Your task to perform on an android device: Add "bose quietcomfort 35" to the cart on costco.com Image 0: 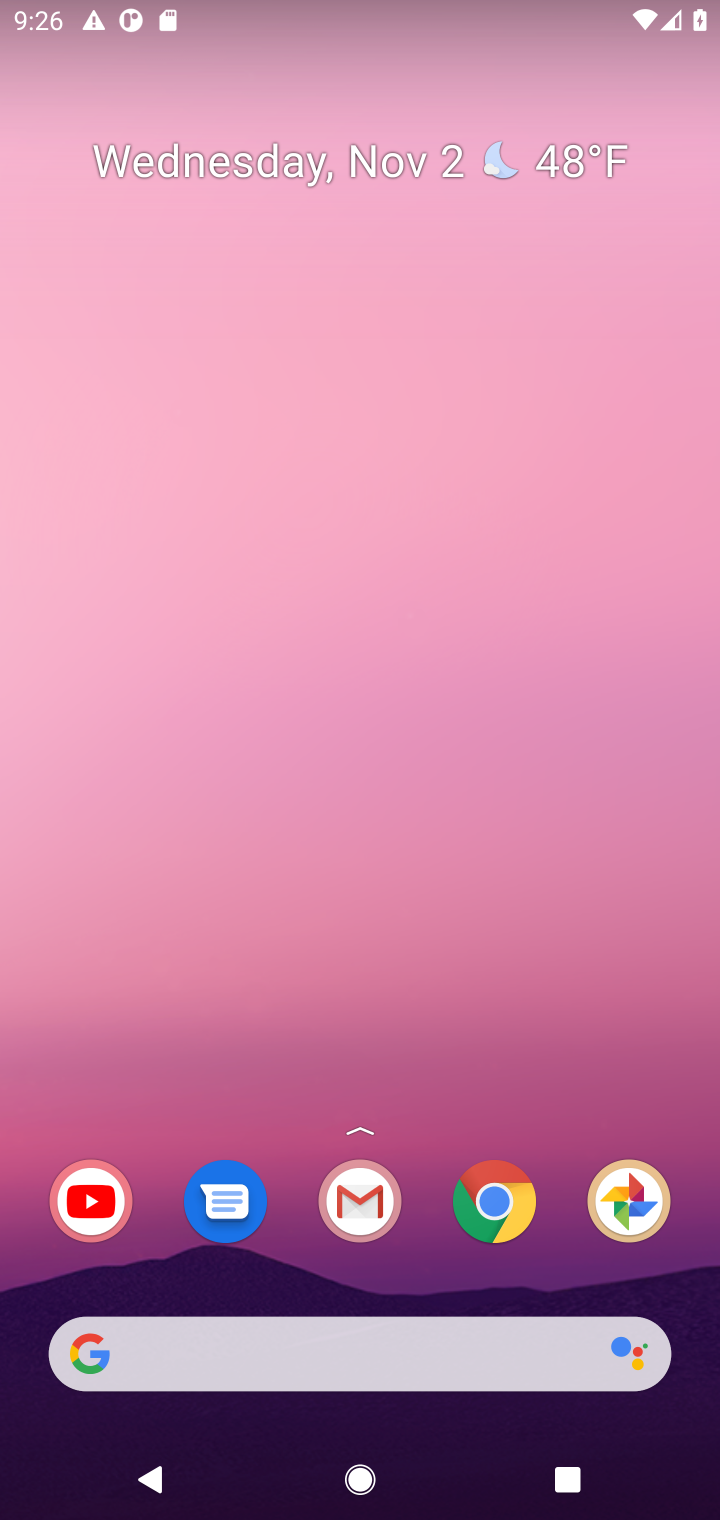
Step 0: drag from (397, 1271) to (352, 253)
Your task to perform on an android device: Add "bose quietcomfort 35" to the cart on costco.com Image 1: 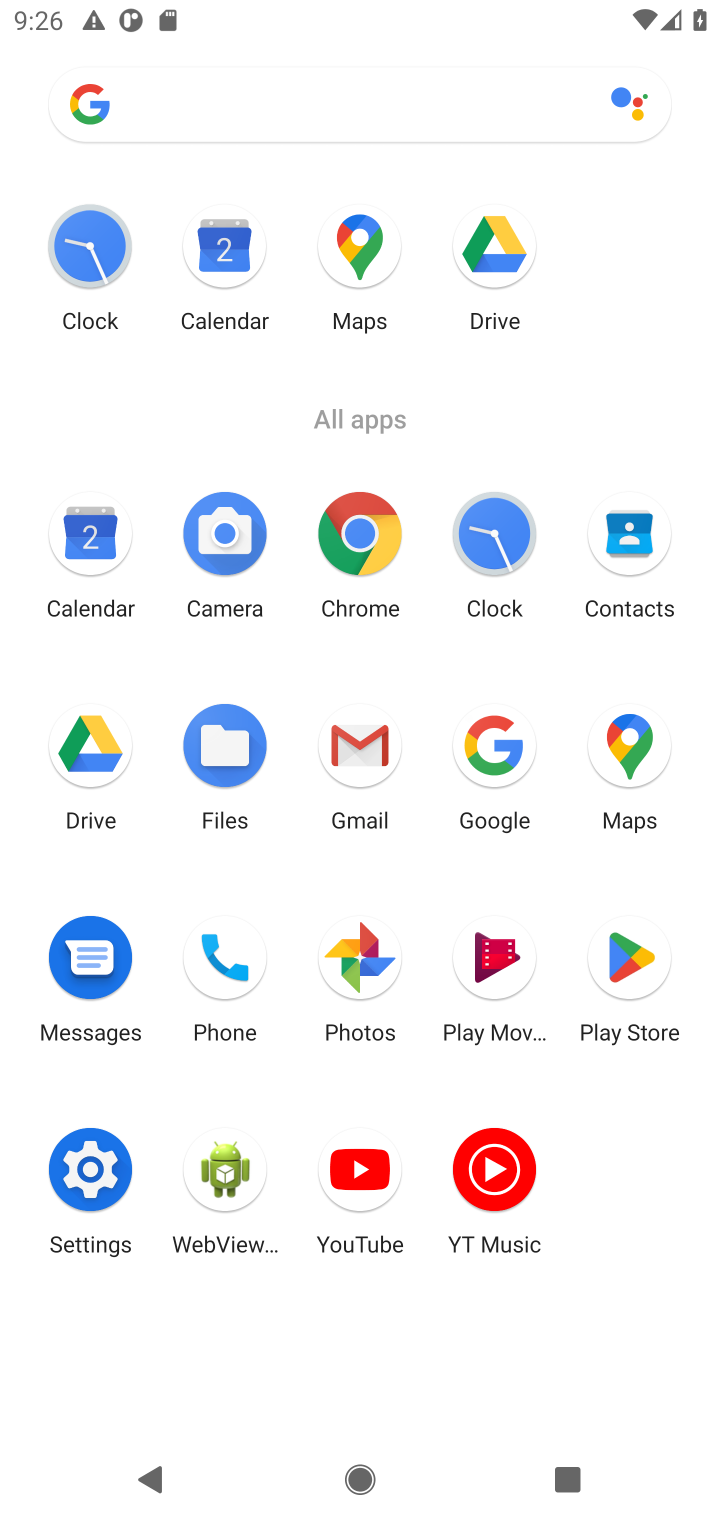
Step 1: click (355, 536)
Your task to perform on an android device: Add "bose quietcomfort 35" to the cart on costco.com Image 2: 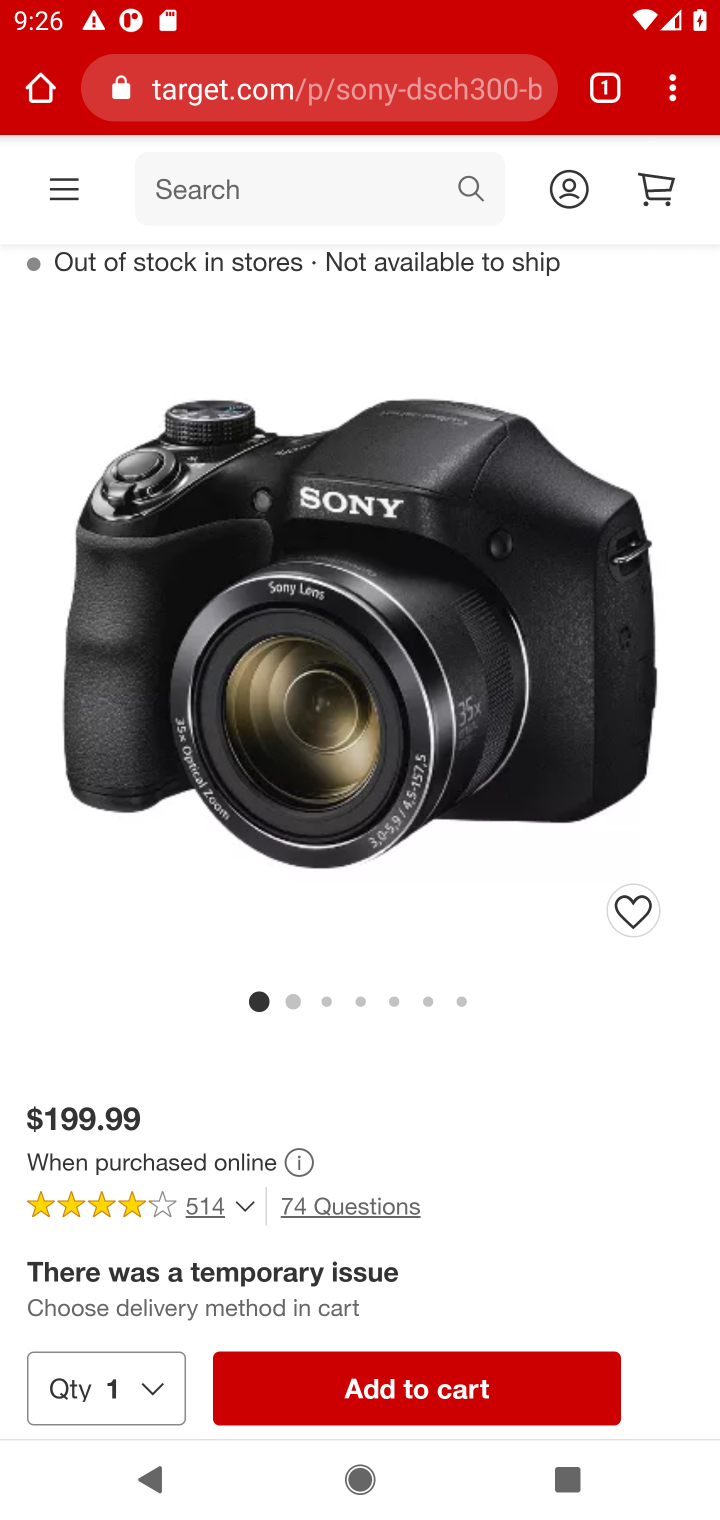
Step 2: click (328, 94)
Your task to perform on an android device: Add "bose quietcomfort 35" to the cart on costco.com Image 3: 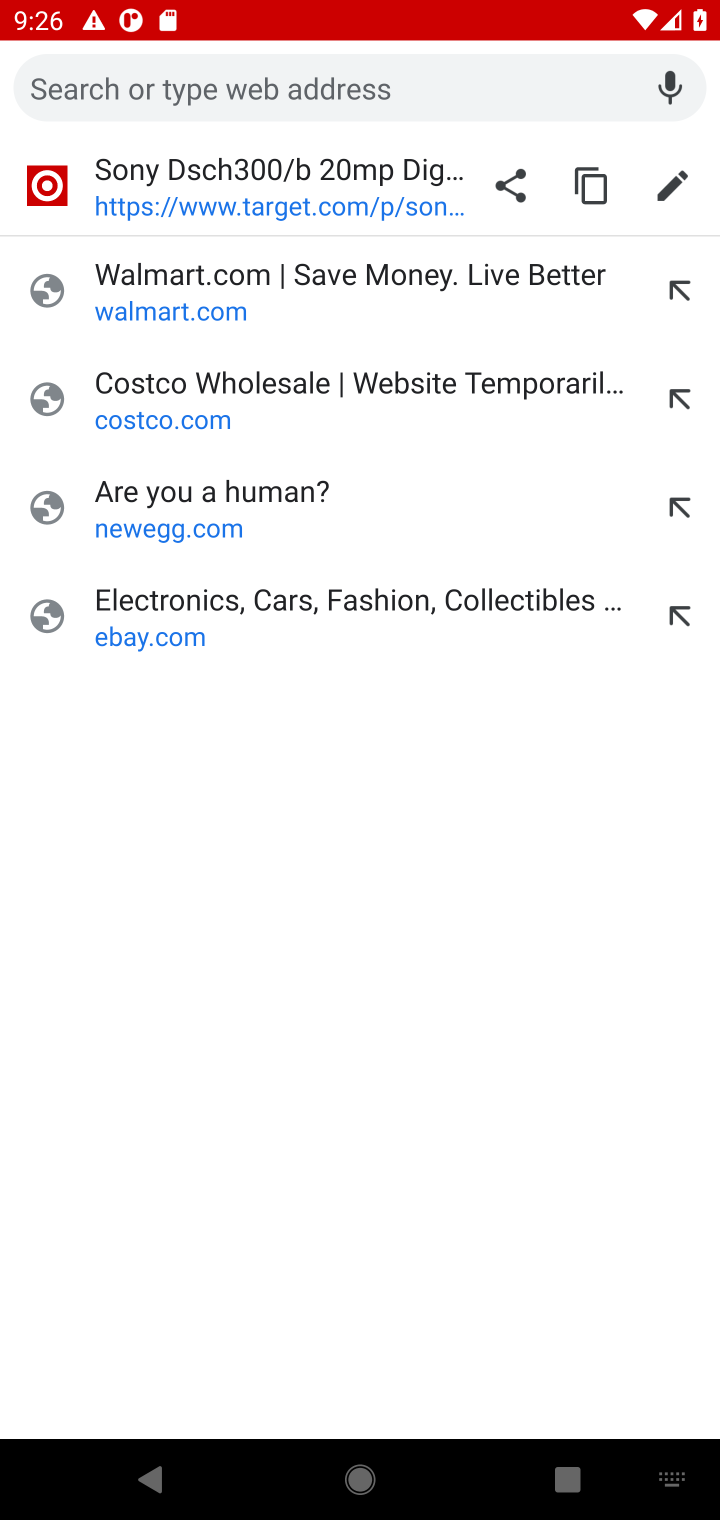
Step 3: type "costco.com"
Your task to perform on an android device: Add "bose quietcomfort 35" to the cart on costco.com Image 4: 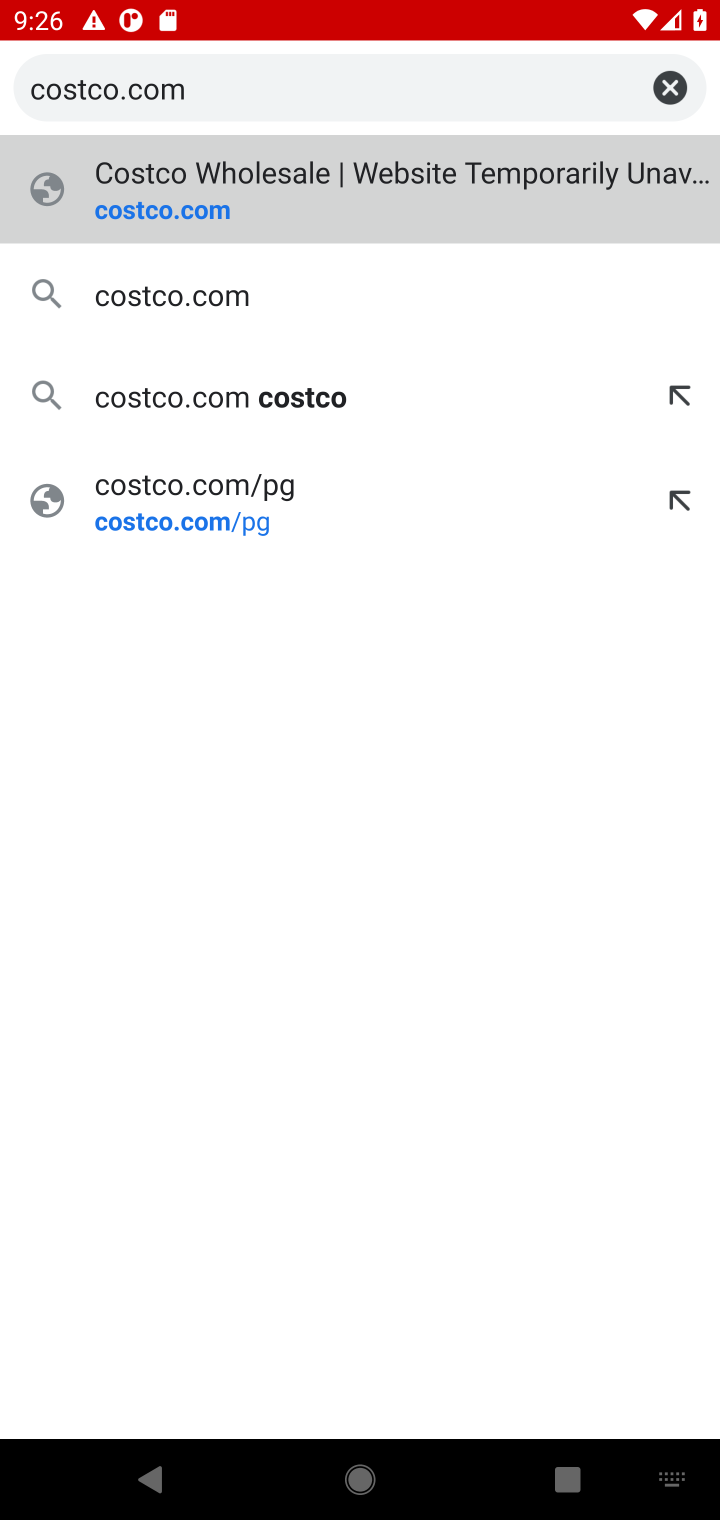
Step 4: press enter
Your task to perform on an android device: Add "bose quietcomfort 35" to the cart on costco.com Image 5: 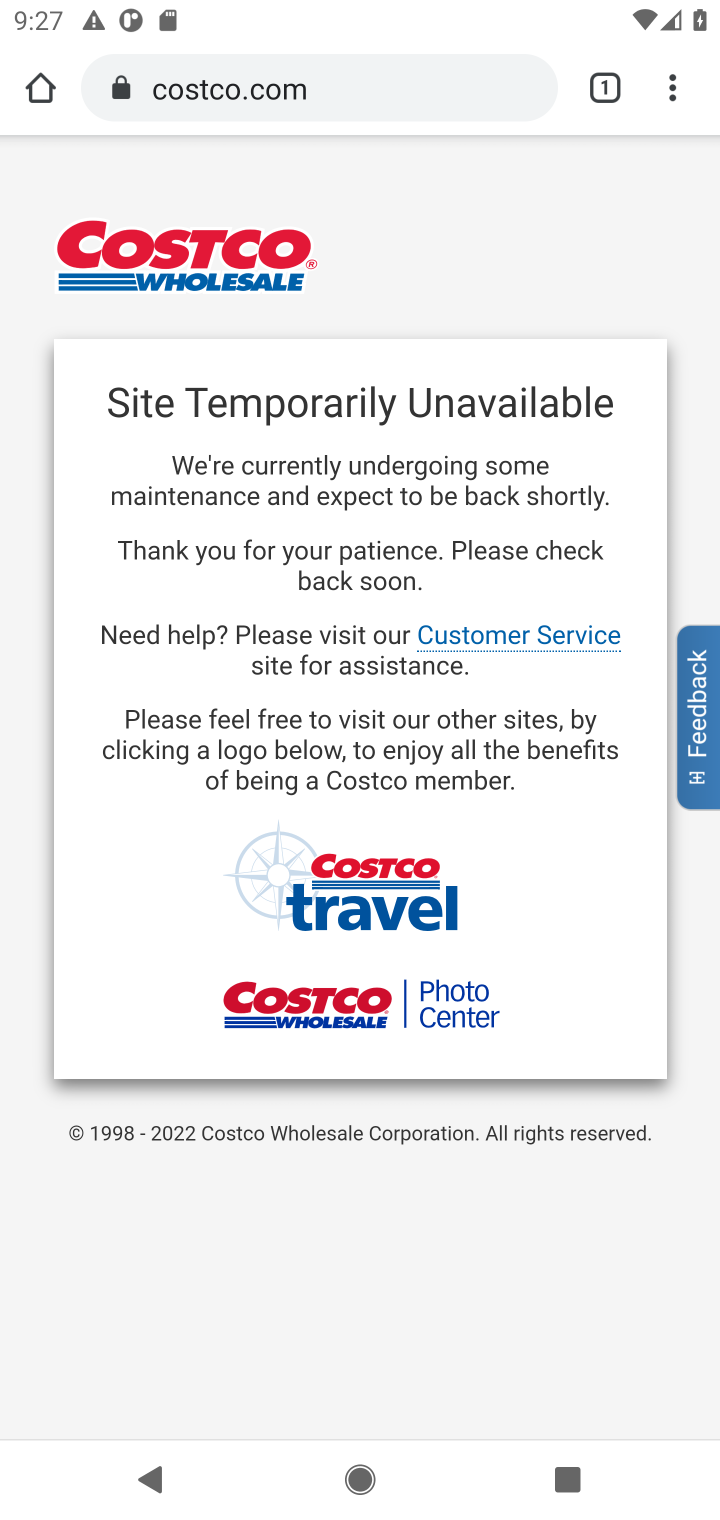
Step 5: task complete